Your task to perform on an android device: Open Google Maps Image 0: 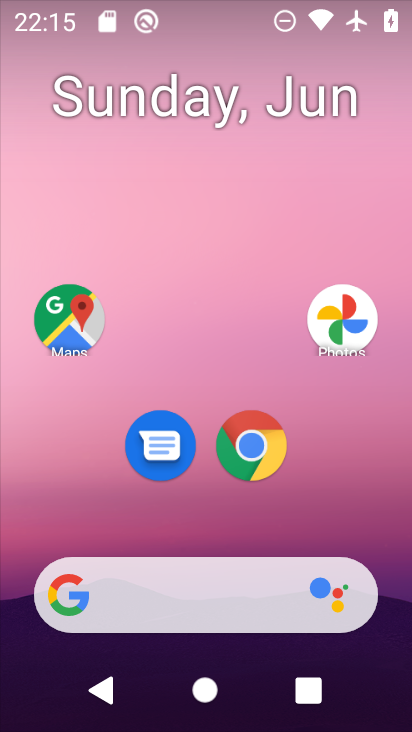
Step 0: press home button
Your task to perform on an android device: Open Google Maps Image 1: 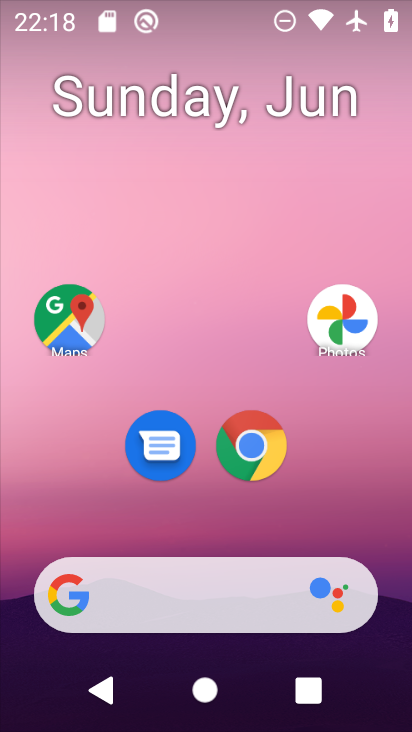
Step 1: click (82, 307)
Your task to perform on an android device: Open Google Maps Image 2: 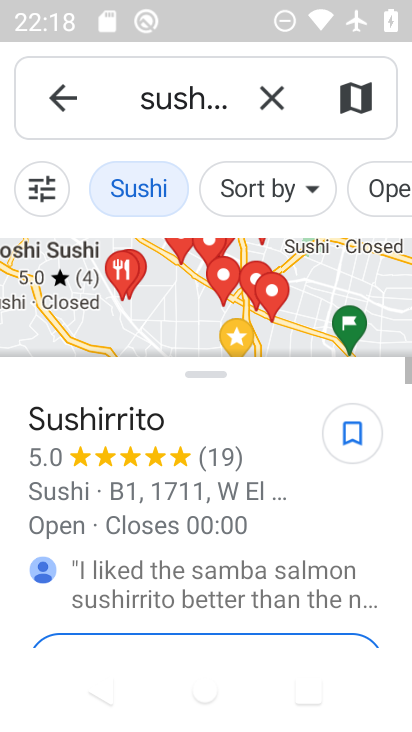
Step 2: click (278, 95)
Your task to perform on an android device: Open Google Maps Image 3: 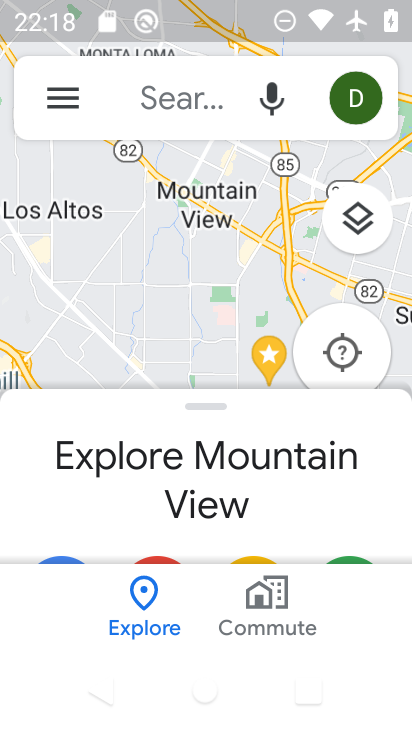
Step 3: press home button
Your task to perform on an android device: Open Google Maps Image 4: 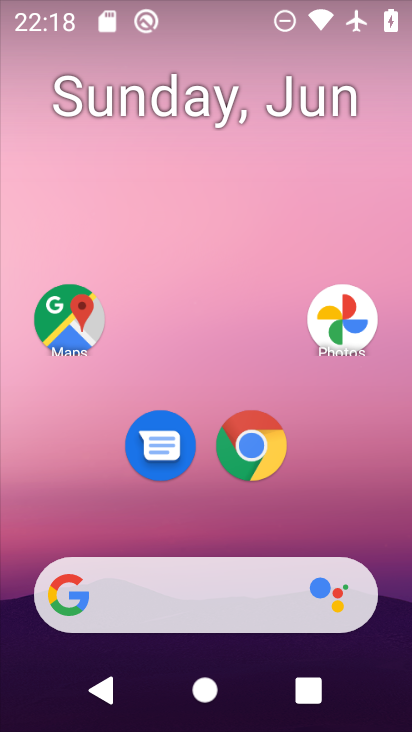
Step 4: click (61, 326)
Your task to perform on an android device: Open Google Maps Image 5: 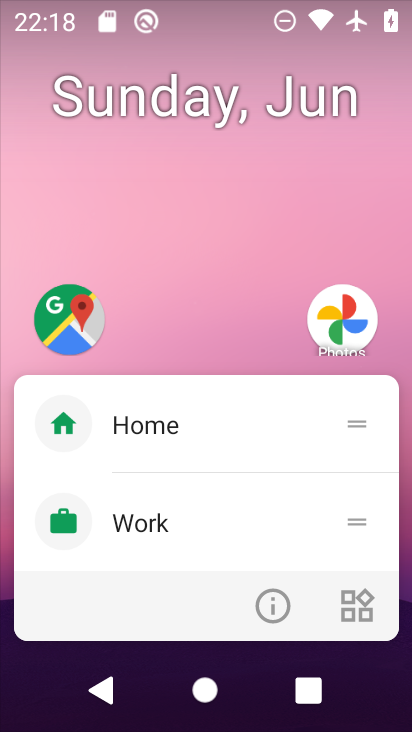
Step 5: click (73, 322)
Your task to perform on an android device: Open Google Maps Image 6: 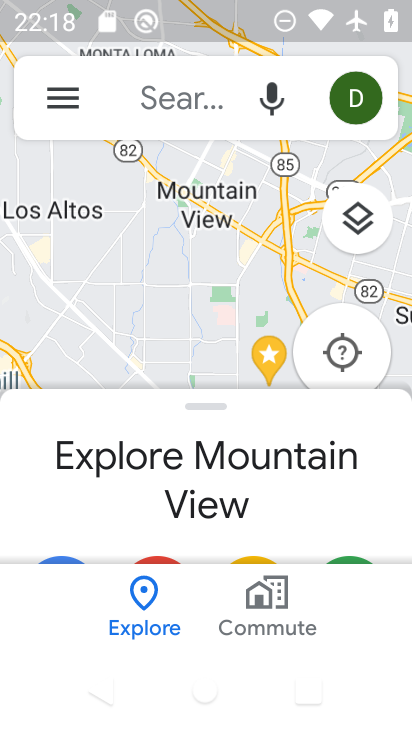
Step 6: task complete